Your task to perform on an android device: turn off notifications in google photos Image 0: 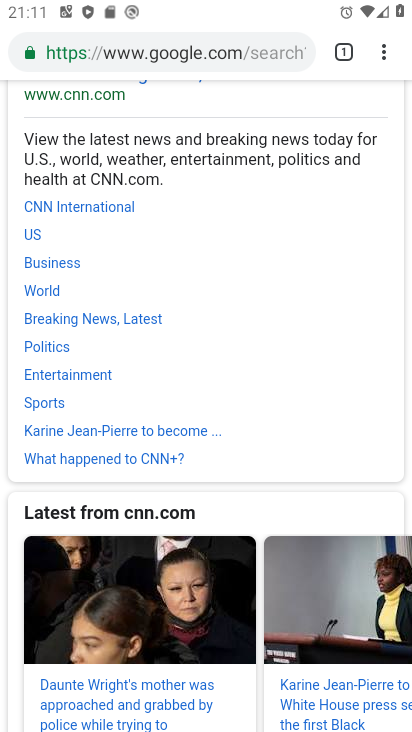
Step 0: press home button
Your task to perform on an android device: turn off notifications in google photos Image 1: 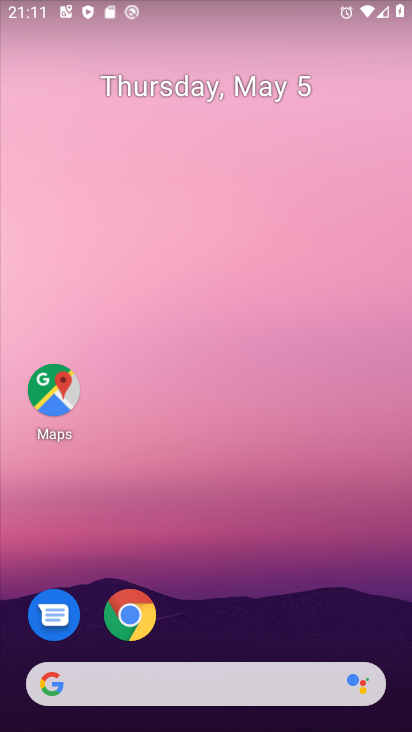
Step 1: drag from (182, 644) to (250, 134)
Your task to perform on an android device: turn off notifications in google photos Image 2: 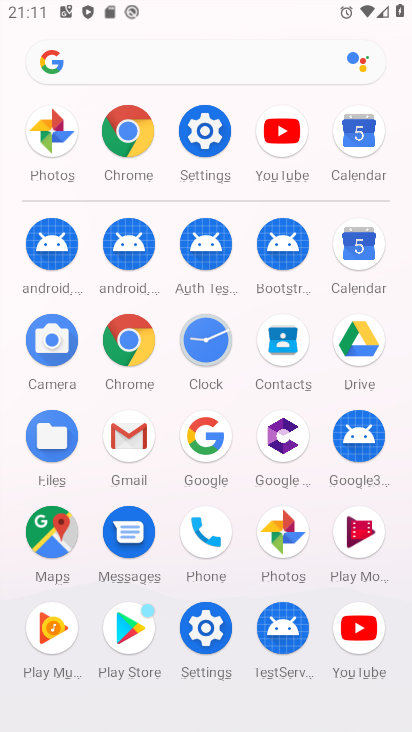
Step 2: click (269, 523)
Your task to perform on an android device: turn off notifications in google photos Image 3: 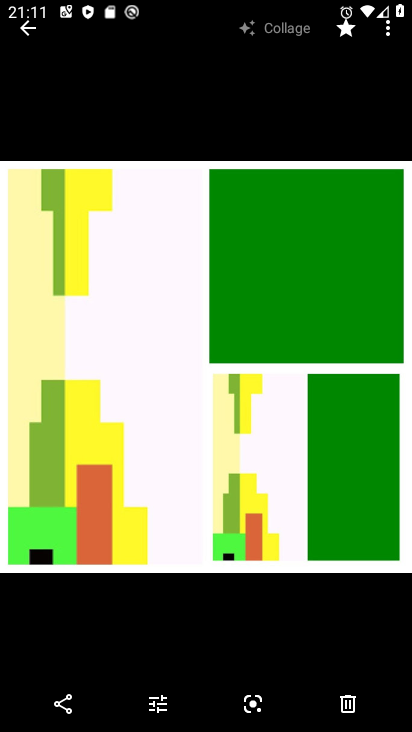
Step 3: click (25, 31)
Your task to perform on an android device: turn off notifications in google photos Image 4: 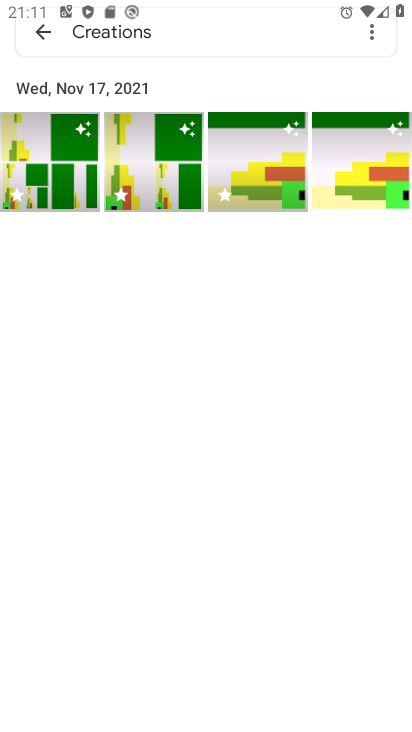
Step 4: click (35, 32)
Your task to perform on an android device: turn off notifications in google photos Image 5: 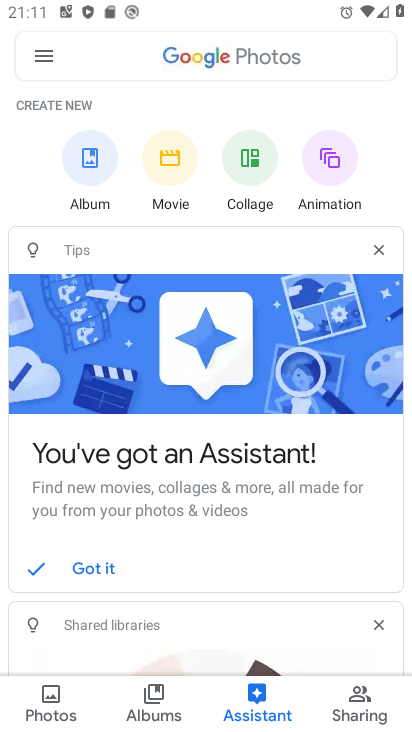
Step 5: click (40, 47)
Your task to perform on an android device: turn off notifications in google photos Image 6: 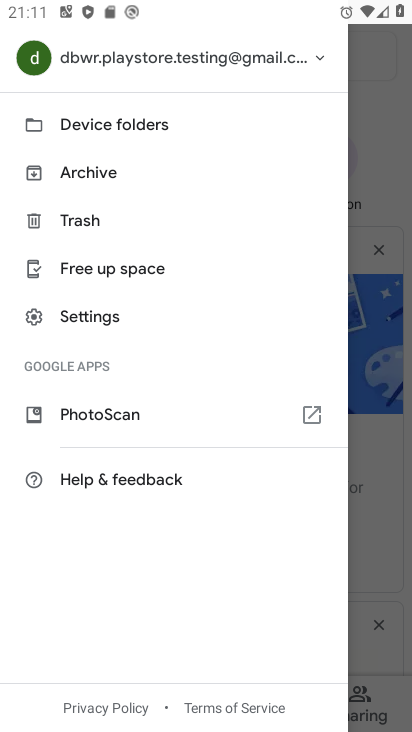
Step 6: click (102, 313)
Your task to perform on an android device: turn off notifications in google photos Image 7: 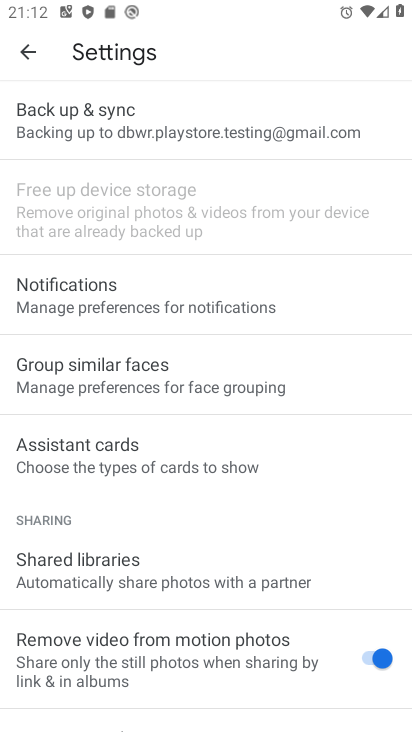
Step 7: click (111, 308)
Your task to perform on an android device: turn off notifications in google photos Image 8: 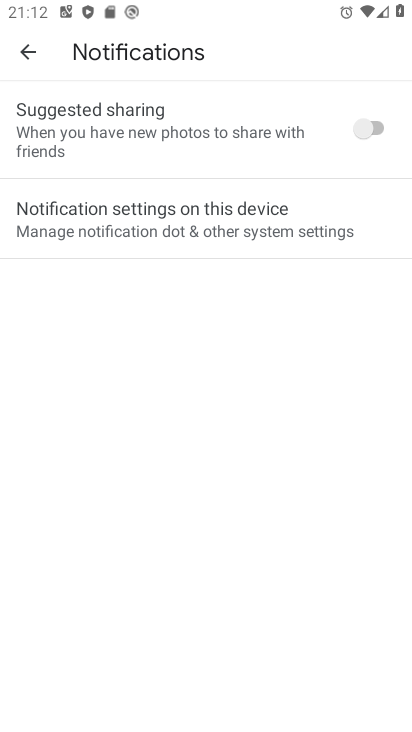
Step 8: click (189, 212)
Your task to perform on an android device: turn off notifications in google photos Image 9: 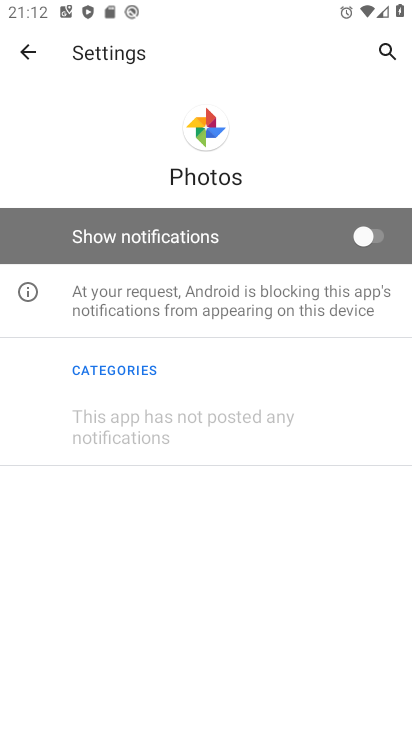
Step 9: task complete